Your task to perform on an android device: Open Youtube and go to "Your channel" Image 0: 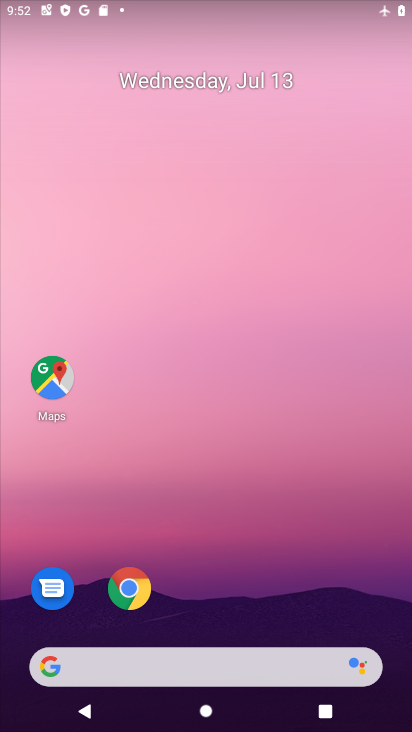
Step 0: drag from (235, 610) to (268, 119)
Your task to perform on an android device: Open Youtube and go to "Your channel" Image 1: 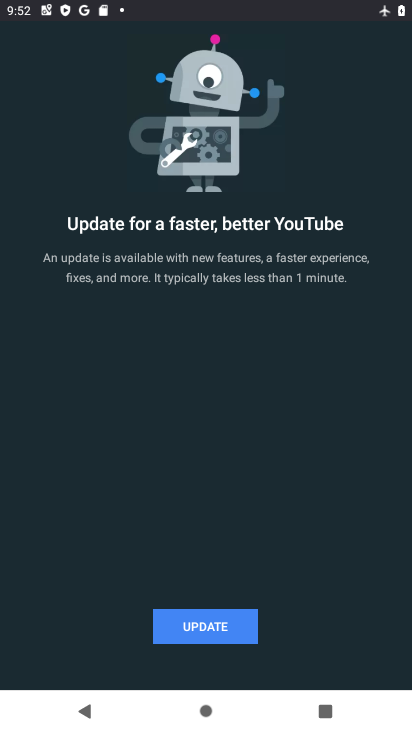
Step 1: press home button
Your task to perform on an android device: Open Youtube and go to "Your channel" Image 2: 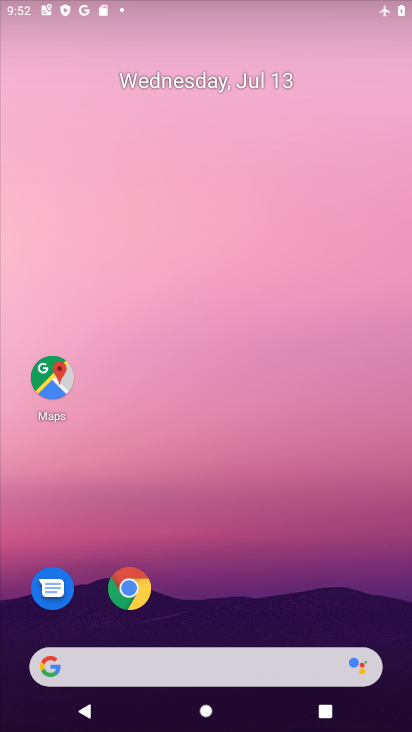
Step 2: drag from (237, 613) to (302, 126)
Your task to perform on an android device: Open Youtube and go to "Your channel" Image 3: 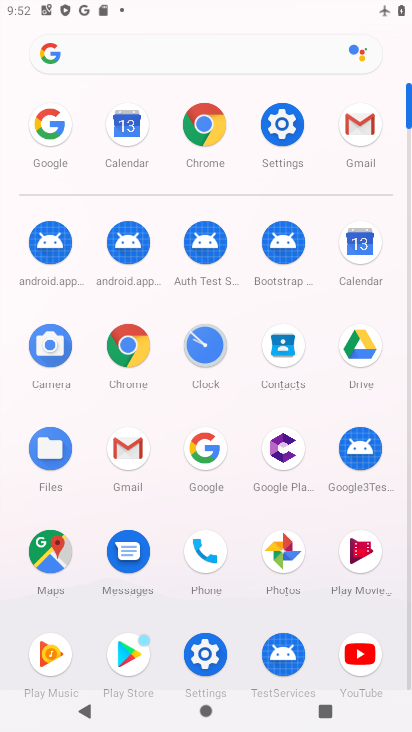
Step 3: click (362, 655)
Your task to perform on an android device: Open Youtube and go to "Your channel" Image 4: 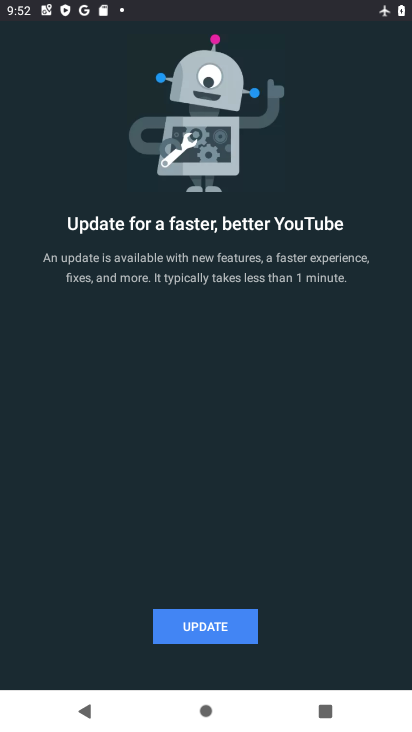
Step 4: click (206, 626)
Your task to perform on an android device: Open Youtube and go to "Your channel" Image 5: 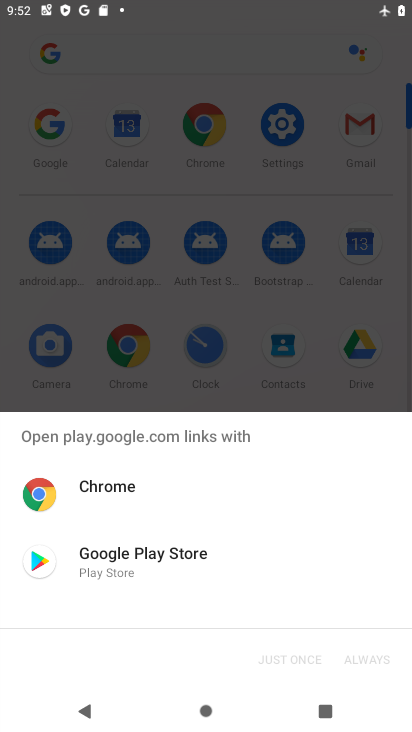
Step 5: click (104, 553)
Your task to perform on an android device: Open Youtube and go to "Your channel" Image 6: 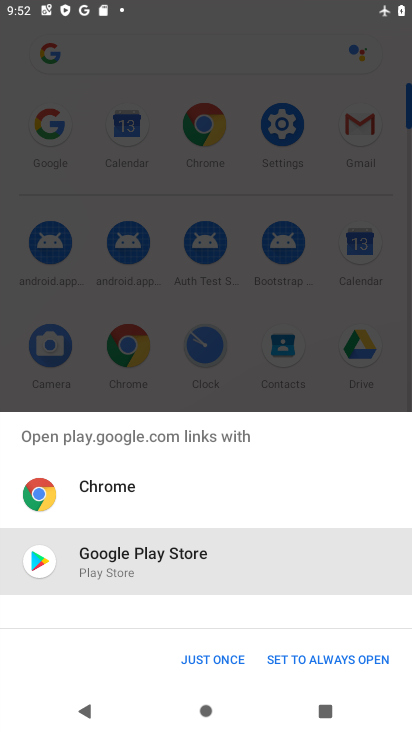
Step 6: click (206, 659)
Your task to perform on an android device: Open Youtube and go to "Your channel" Image 7: 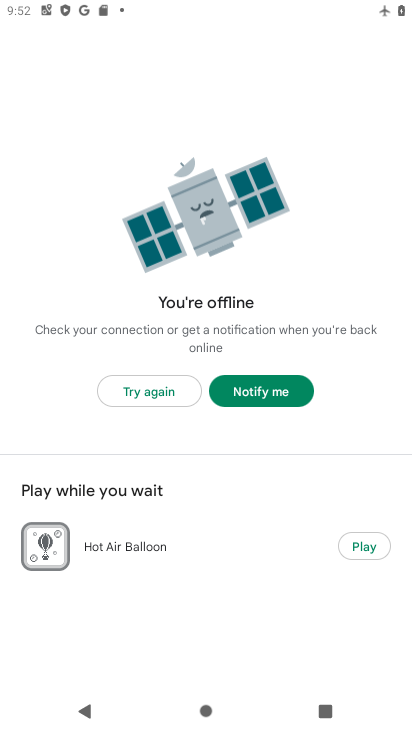
Step 7: task complete